Your task to perform on an android device: Open the calendar app, open the side menu, and click the "Day" option Image 0: 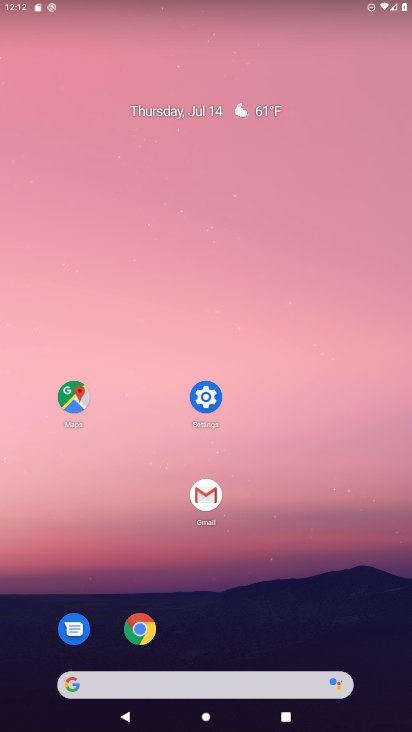
Step 0: drag from (395, 708) to (359, 129)
Your task to perform on an android device: Open the calendar app, open the side menu, and click the "Day" option Image 1: 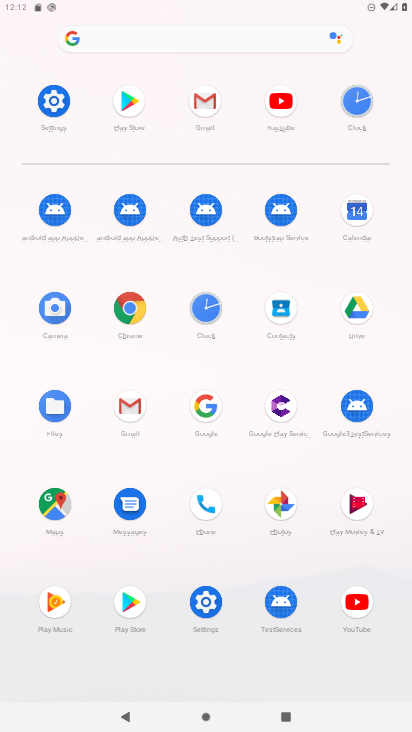
Step 1: drag from (362, 206) to (293, 419)
Your task to perform on an android device: Open the calendar app, open the side menu, and click the "Day" option Image 2: 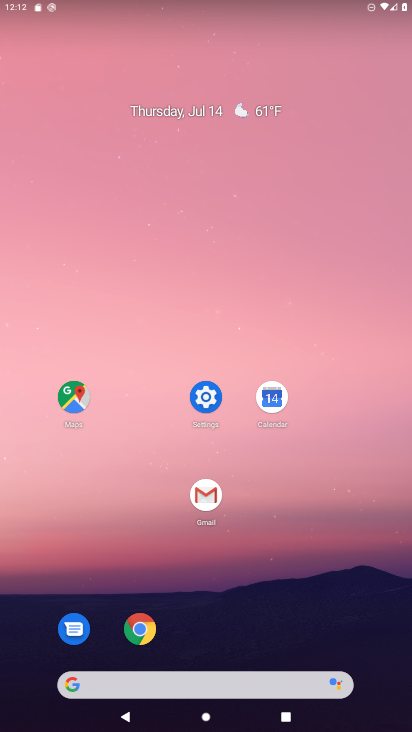
Step 2: click (268, 397)
Your task to perform on an android device: Open the calendar app, open the side menu, and click the "Day" option Image 3: 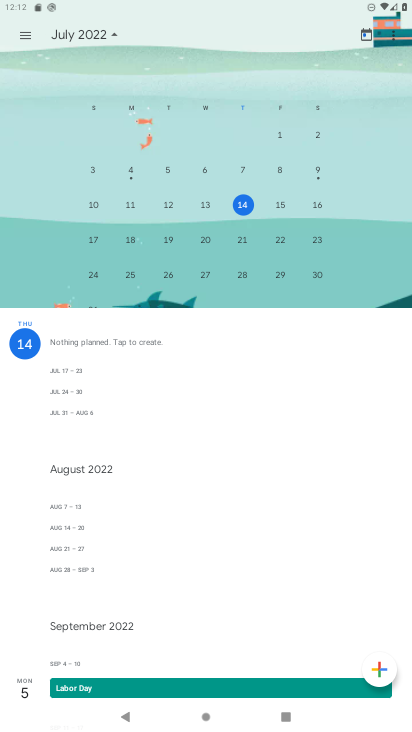
Step 3: click (22, 34)
Your task to perform on an android device: Open the calendar app, open the side menu, and click the "Day" option Image 4: 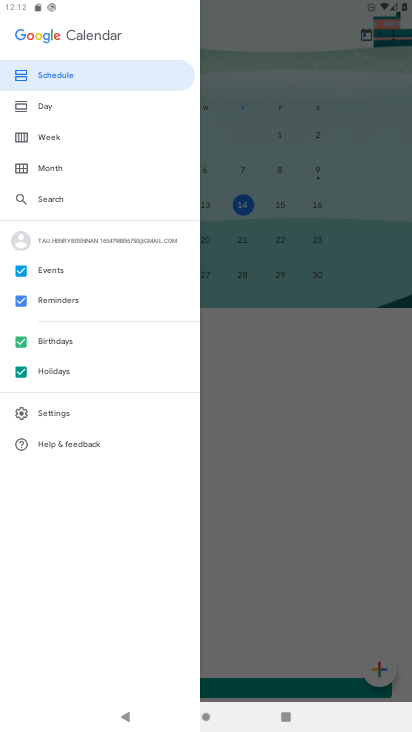
Step 4: click (49, 110)
Your task to perform on an android device: Open the calendar app, open the side menu, and click the "Day" option Image 5: 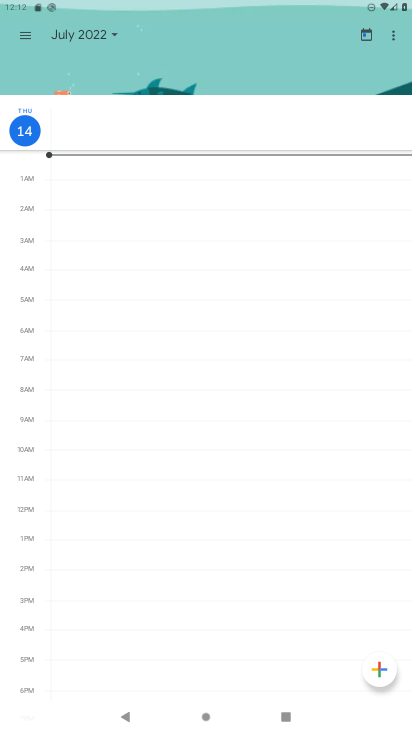
Step 5: task complete